Your task to perform on an android device: open app "Cash App" (install if not already installed) Image 0: 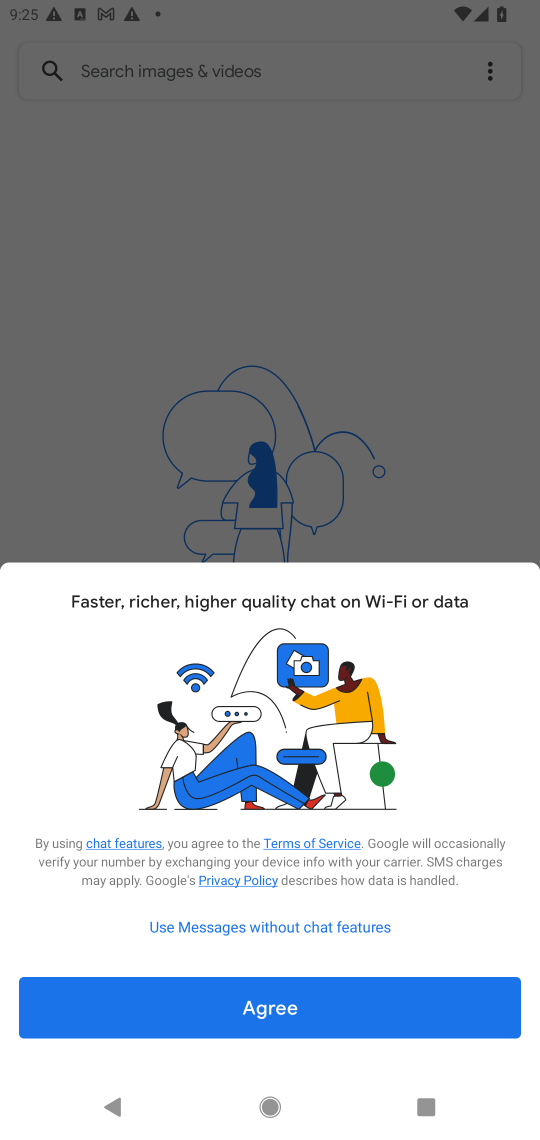
Step 0: press home button
Your task to perform on an android device: open app "Cash App" (install if not already installed) Image 1: 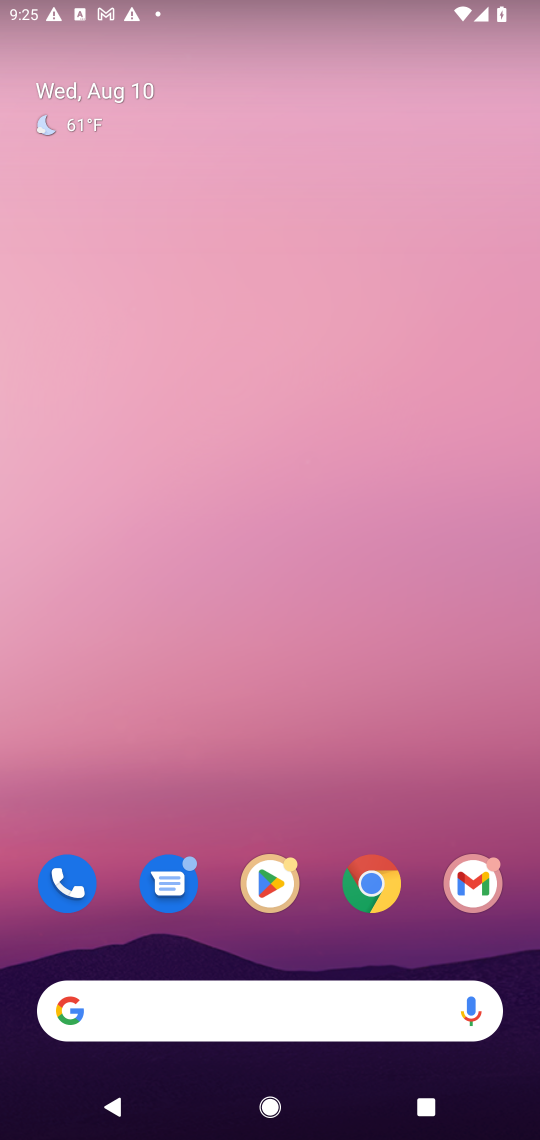
Step 1: click (277, 899)
Your task to perform on an android device: open app "Cash App" (install if not already installed) Image 2: 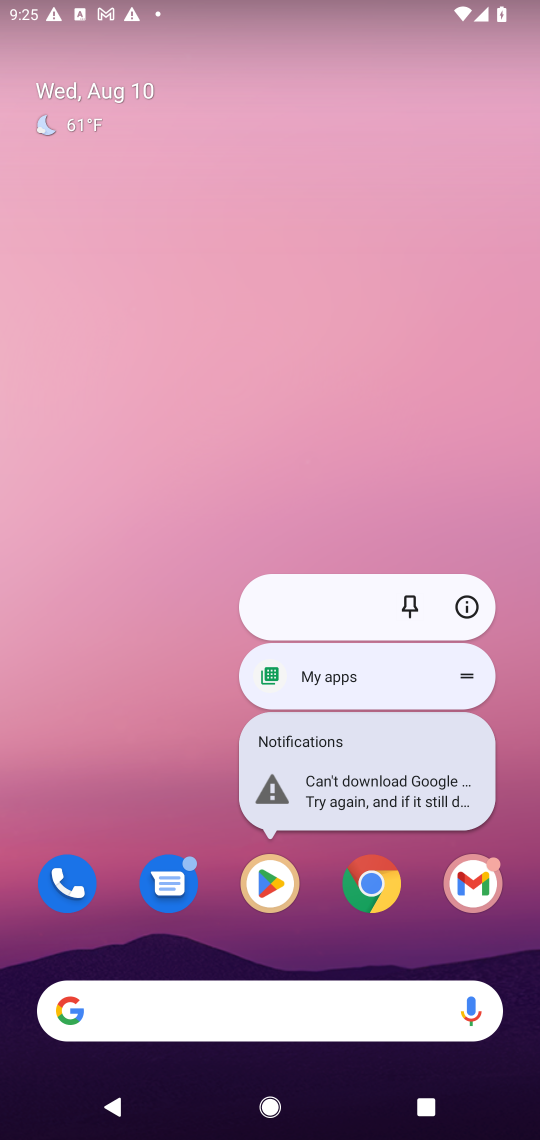
Step 2: click (270, 889)
Your task to perform on an android device: open app "Cash App" (install if not already installed) Image 3: 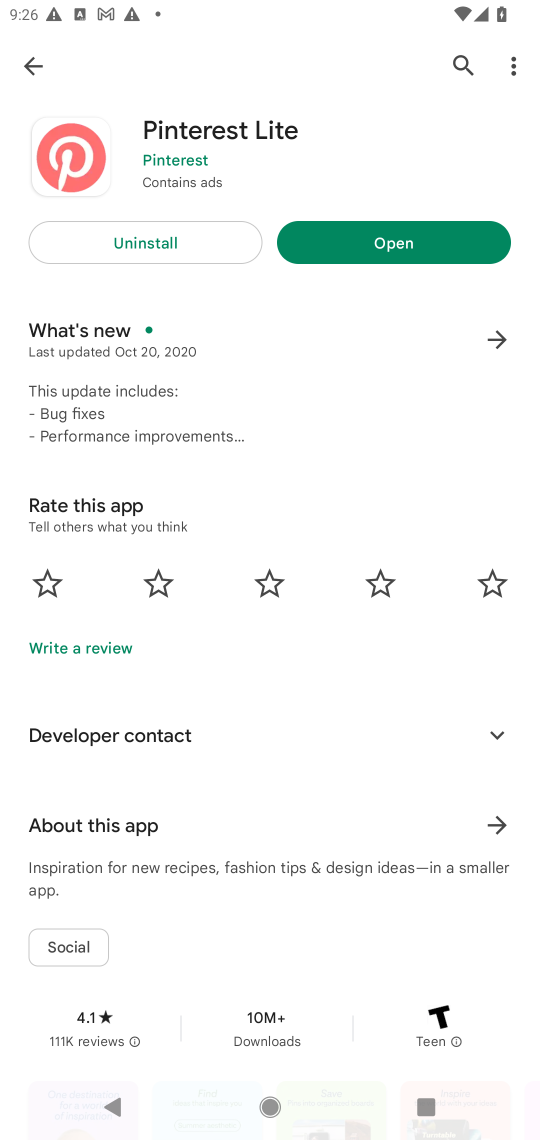
Step 3: click (453, 56)
Your task to perform on an android device: open app "Cash App" (install if not already installed) Image 4: 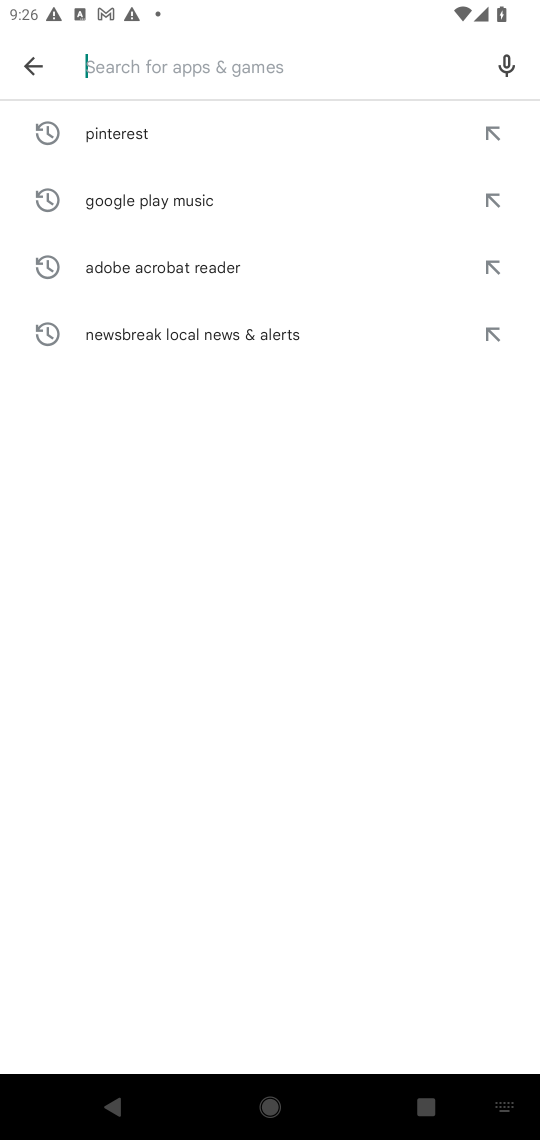
Step 4: type "Cash App"
Your task to perform on an android device: open app "Cash App" (install if not already installed) Image 5: 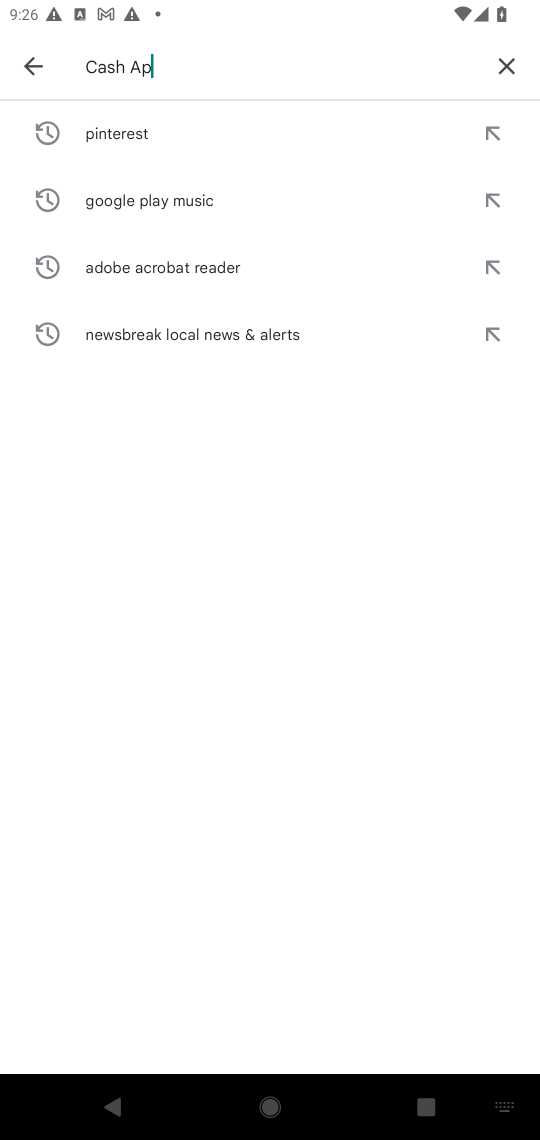
Step 5: type ""
Your task to perform on an android device: open app "Cash App" (install if not already installed) Image 6: 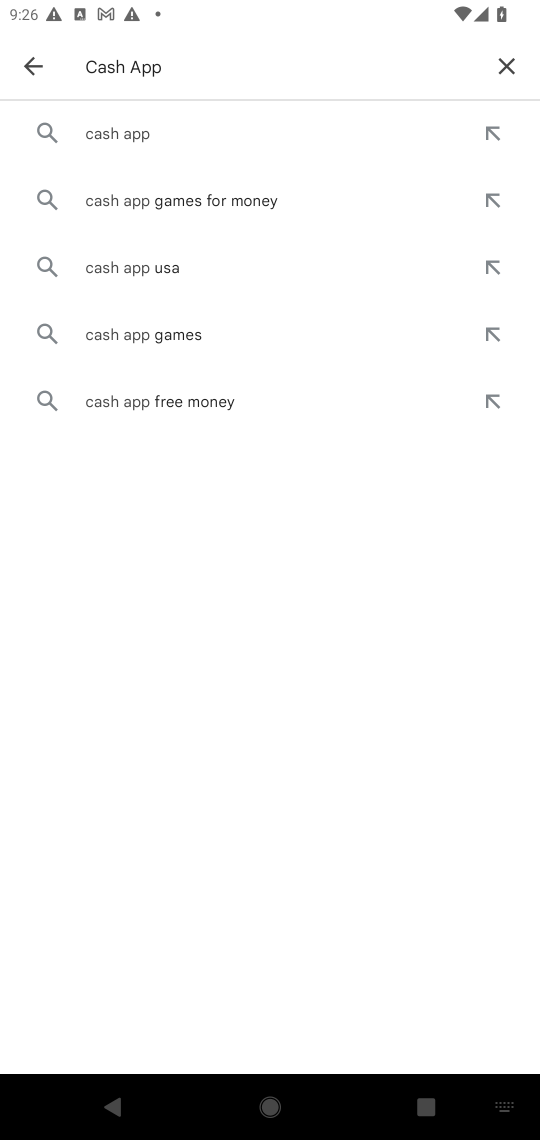
Step 6: click (133, 130)
Your task to perform on an android device: open app "Cash App" (install if not already installed) Image 7: 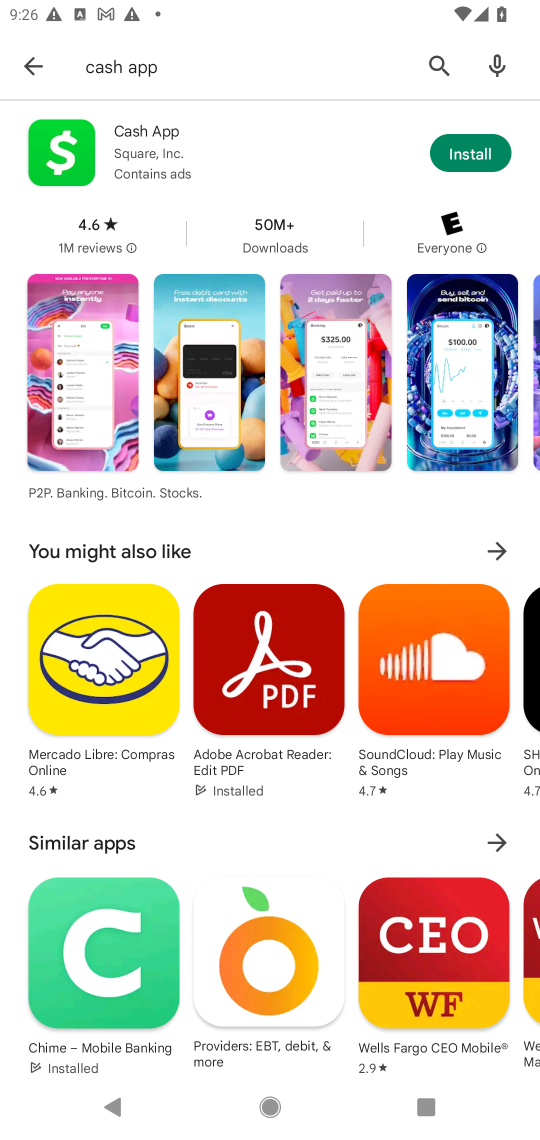
Step 7: click (457, 148)
Your task to perform on an android device: open app "Cash App" (install if not already installed) Image 8: 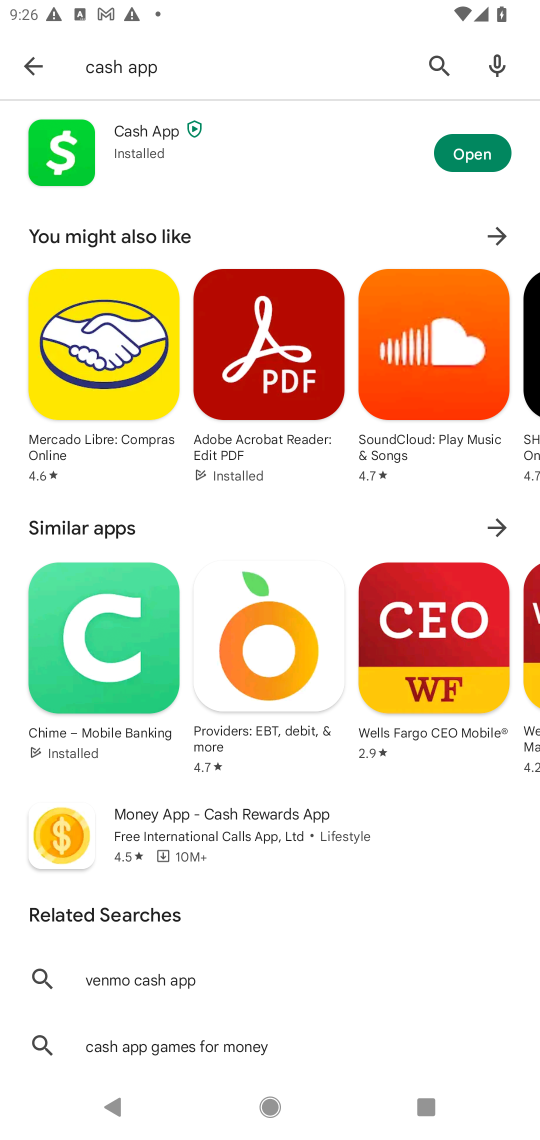
Step 8: click (457, 148)
Your task to perform on an android device: open app "Cash App" (install if not already installed) Image 9: 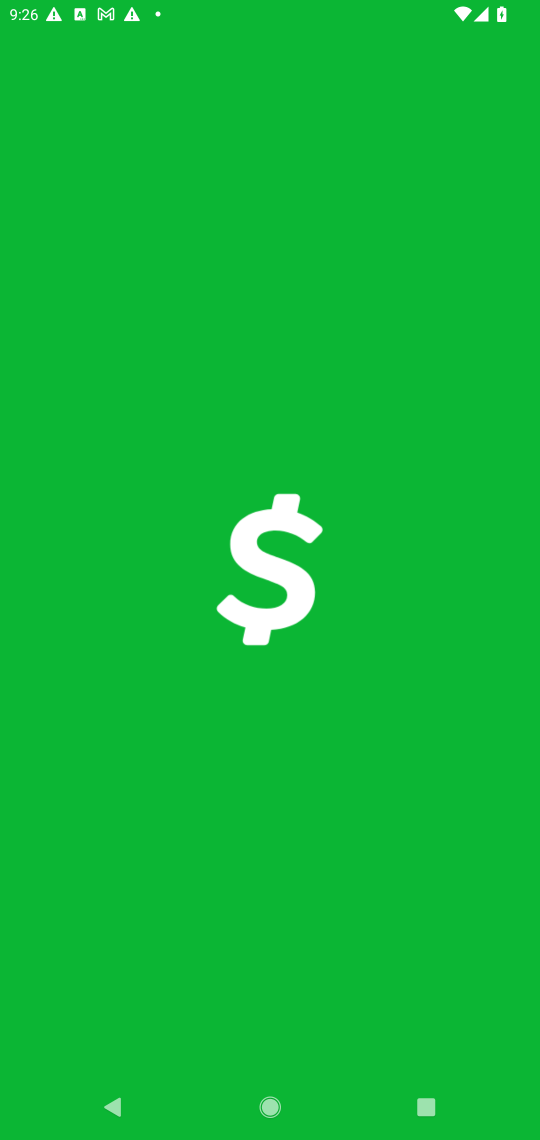
Step 9: task complete